Your task to perform on an android device: Open the stopwatch Image 0: 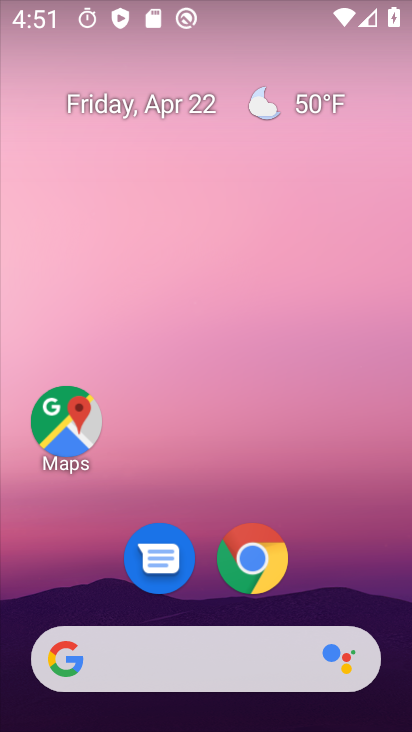
Step 0: drag from (320, 581) to (188, 173)
Your task to perform on an android device: Open the stopwatch Image 1: 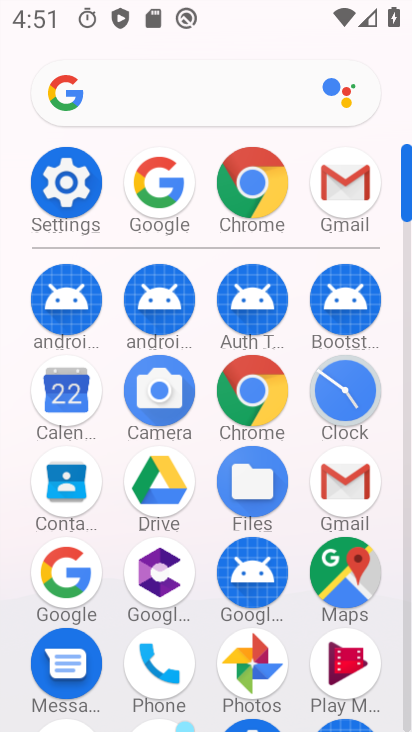
Step 1: click (361, 411)
Your task to perform on an android device: Open the stopwatch Image 2: 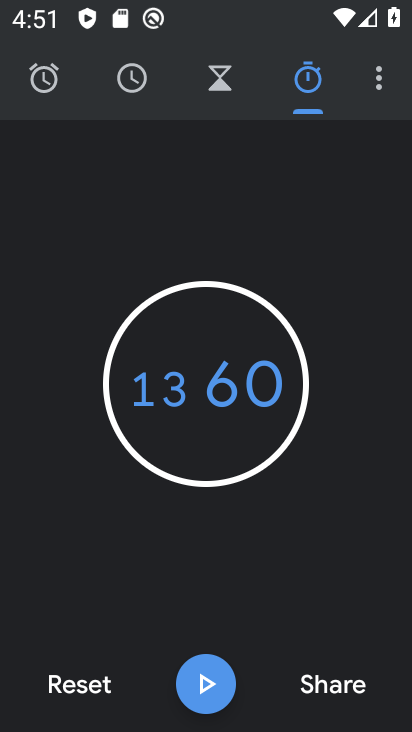
Step 2: click (85, 694)
Your task to perform on an android device: Open the stopwatch Image 3: 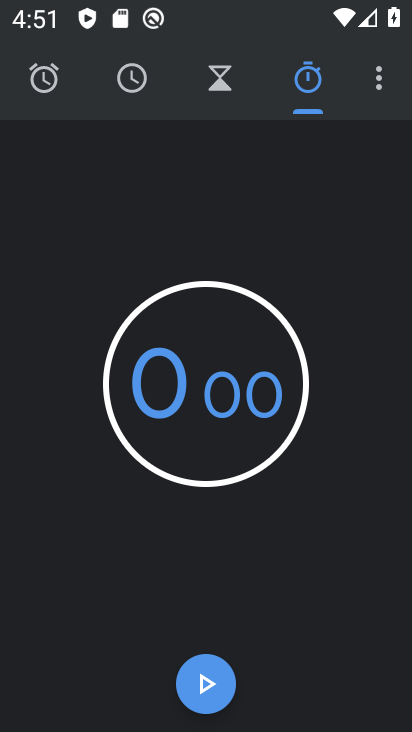
Step 3: click (203, 695)
Your task to perform on an android device: Open the stopwatch Image 4: 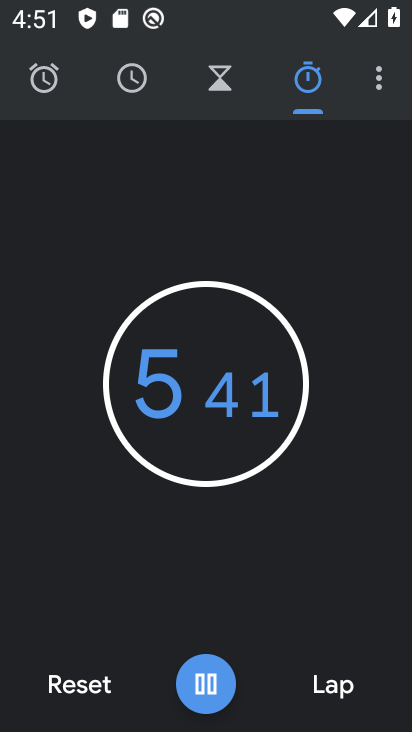
Step 4: click (201, 689)
Your task to perform on an android device: Open the stopwatch Image 5: 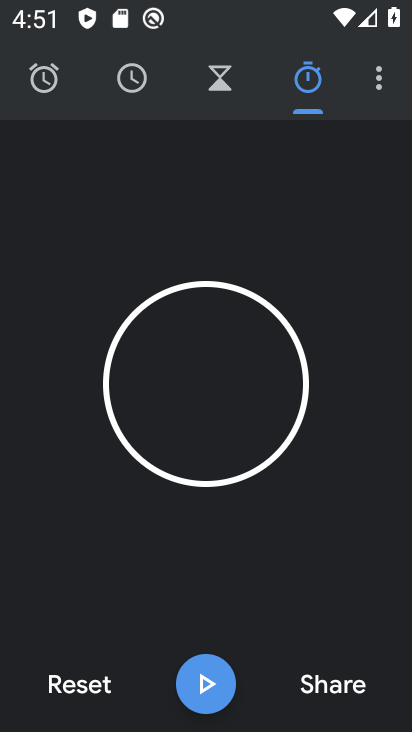
Step 5: task complete